Your task to perform on an android device: toggle javascript in the chrome app Image 0: 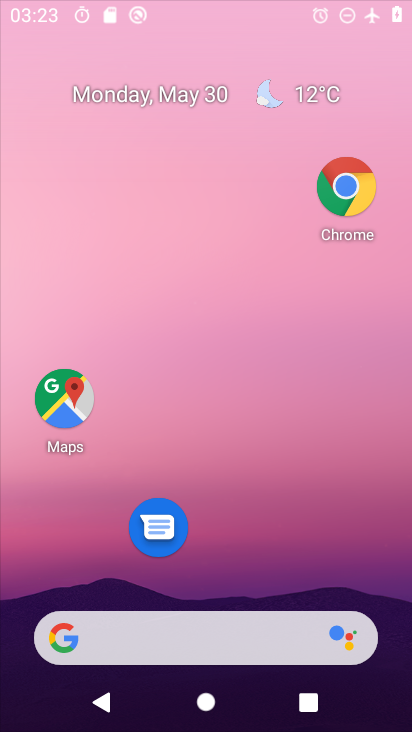
Step 0: drag from (270, 579) to (364, 126)
Your task to perform on an android device: toggle javascript in the chrome app Image 1: 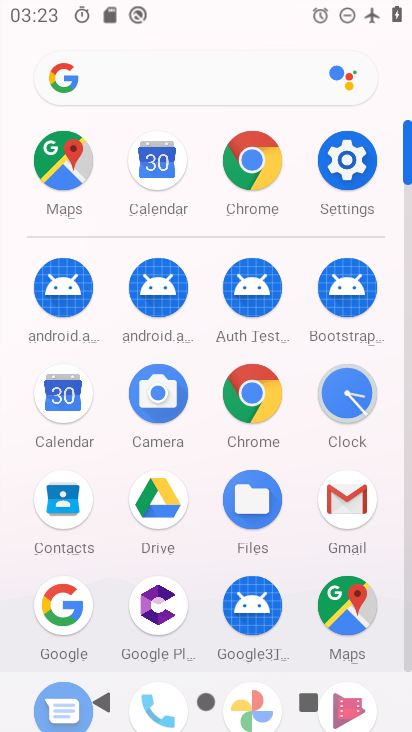
Step 1: click (249, 389)
Your task to perform on an android device: toggle javascript in the chrome app Image 2: 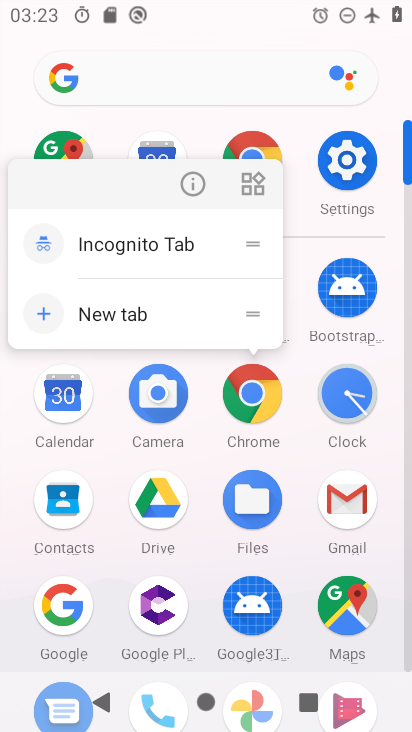
Step 2: click (200, 173)
Your task to perform on an android device: toggle javascript in the chrome app Image 3: 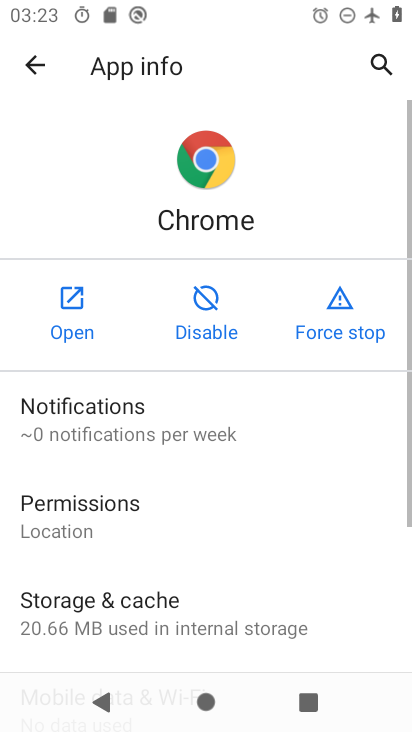
Step 3: click (74, 307)
Your task to perform on an android device: toggle javascript in the chrome app Image 4: 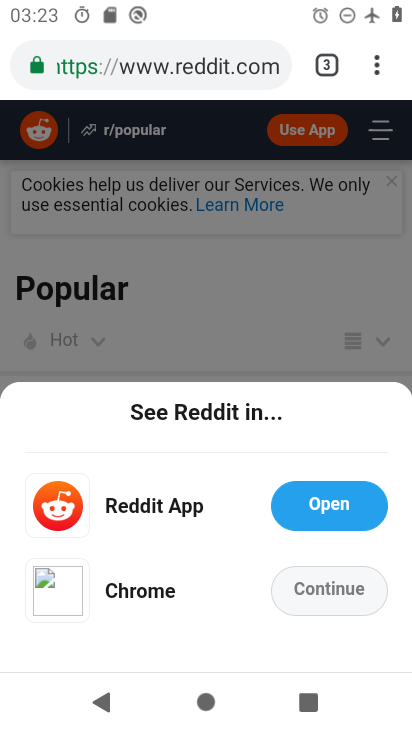
Step 4: drag from (371, 75) to (203, 588)
Your task to perform on an android device: toggle javascript in the chrome app Image 5: 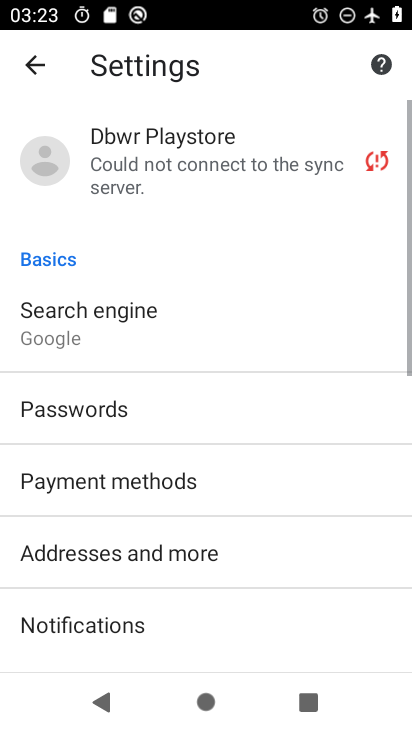
Step 5: drag from (208, 560) to (292, 90)
Your task to perform on an android device: toggle javascript in the chrome app Image 6: 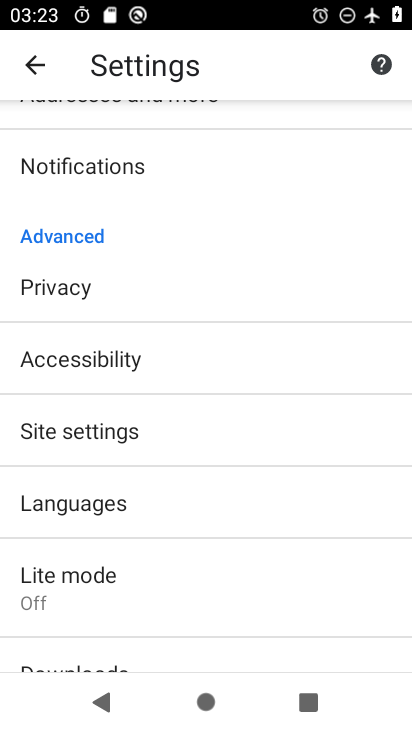
Step 6: click (120, 422)
Your task to perform on an android device: toggle javascript in the chrome app Image 7: 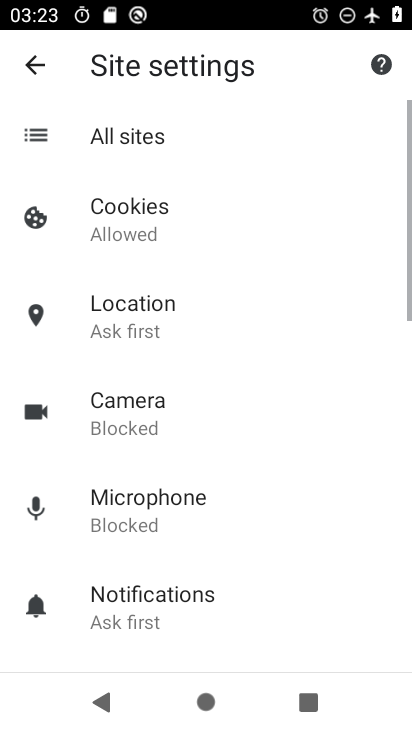
Step 7: drag from (240, 446) to (326, 134)
Your task to perform on an android device: toggle javascript in the chrome app Image 8: 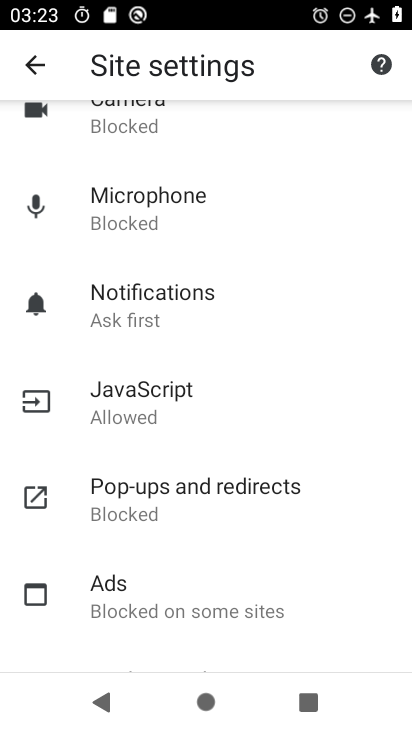
Step 8: drag from (212, 206) to (232, 546)
Your task to perform on an android device: toggle javascript in the chrome app Image 9: 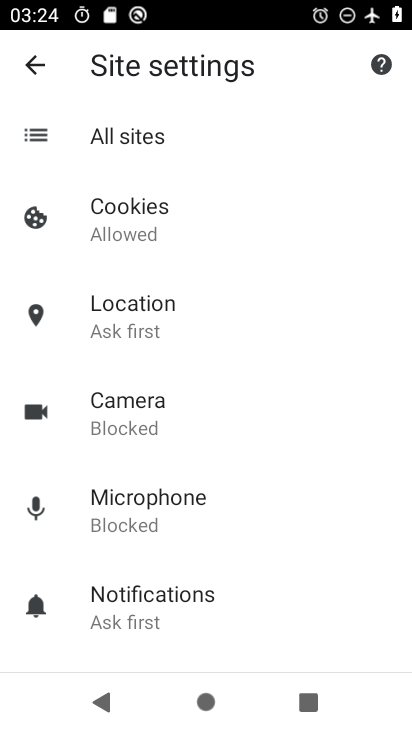
Step 9: drag from (215, 318) to (259, 546)
Your task to perform on an android device: toggle javascript in the chrome app Image 10: 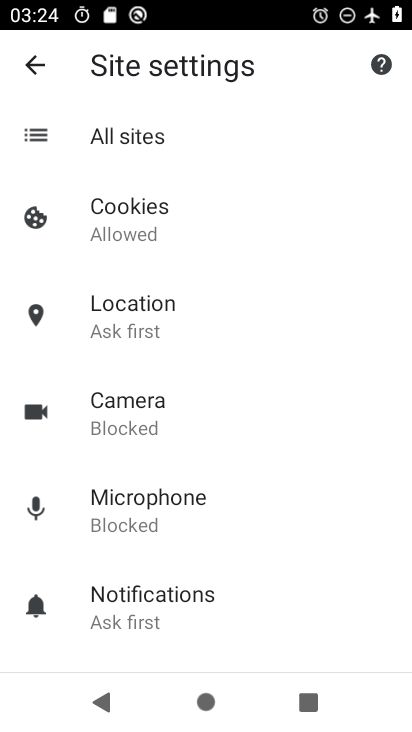
Step 10: drag from (259, 520) to (359, 156)
Your task to perform on an android device: toggle javascript in the chrome app Image 11: 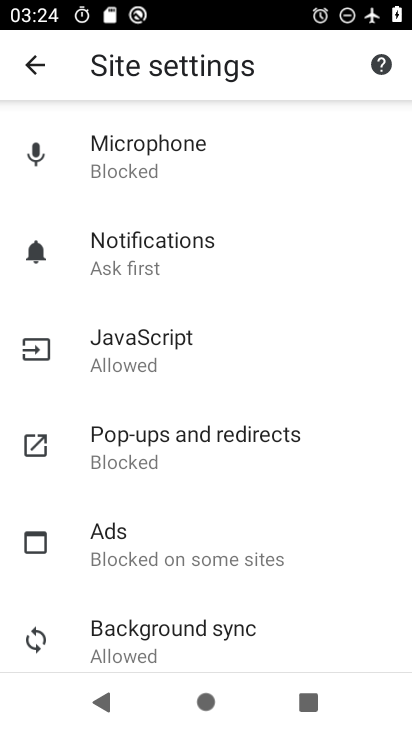
Step 11: click (190, 345)
Your task to perform on an android device: toggle javascript in the chrome app Image 12: 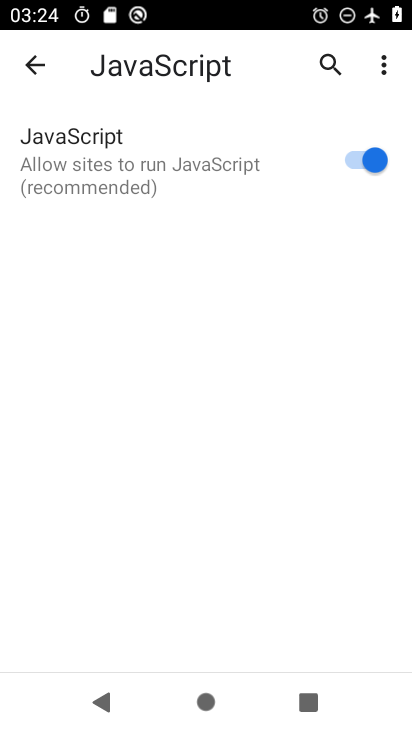
Step 12: click (381, 132)
Your task to perform on an android device: toggle javascript in the chrome app Image 13: 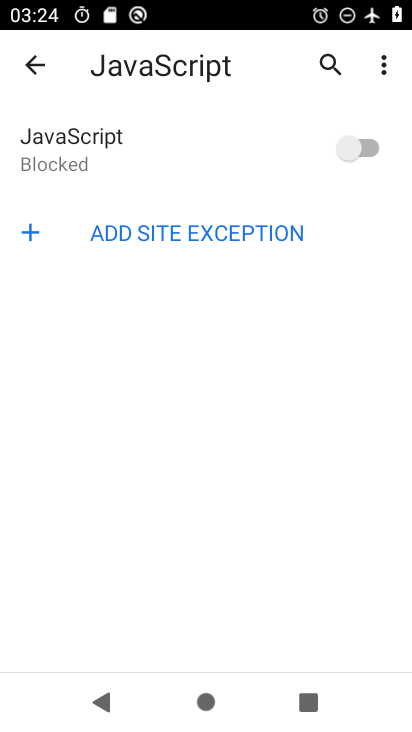
Step 13: task complete